Your task to perform on an android device: change the upload size in google photos Image 0: 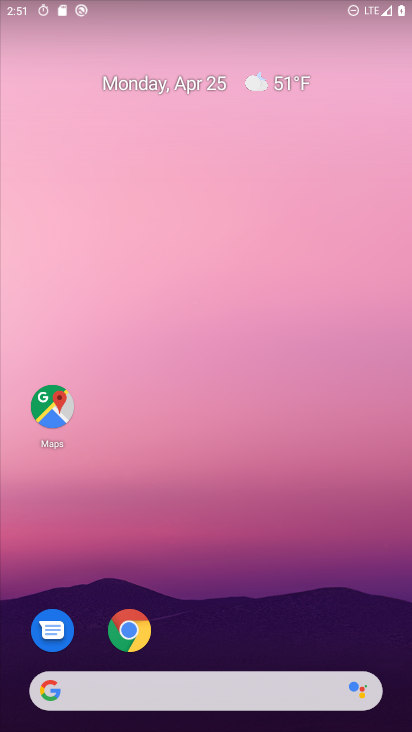
Step 0: drag from (202, 641) to (214, 42)
Your task to perform on an android device: change the upload size in google photos Image 1: 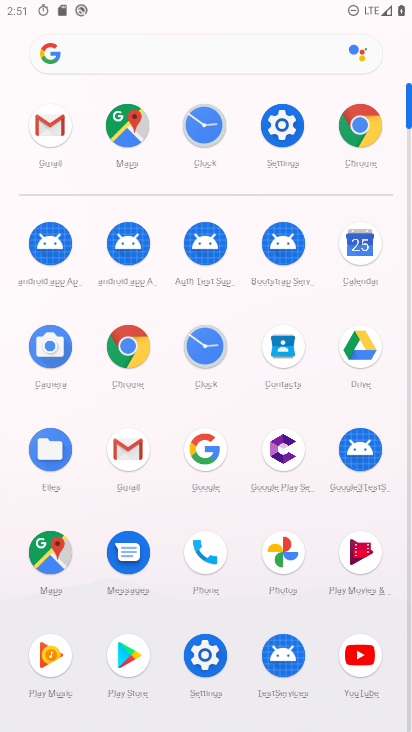
Step 1: click (196, 221)
Your task to perform on an android device: change the upload size in google photos Image 2: 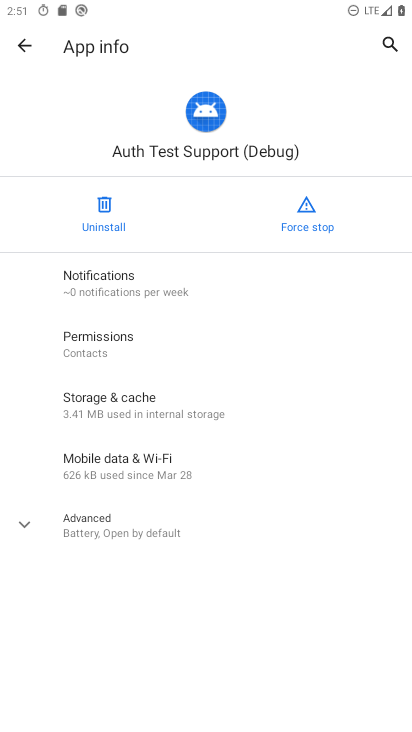
Step 2: press home button
Your task to perform on an android device: change the upload size in google photos Image 3: 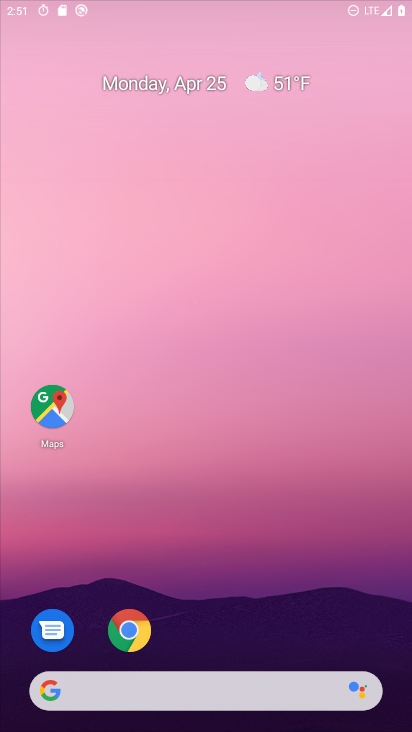
Step 3: drag from (215, 367) to (231, 75)
Your task to perform on an android device: change the upload size in google photos Image 4: 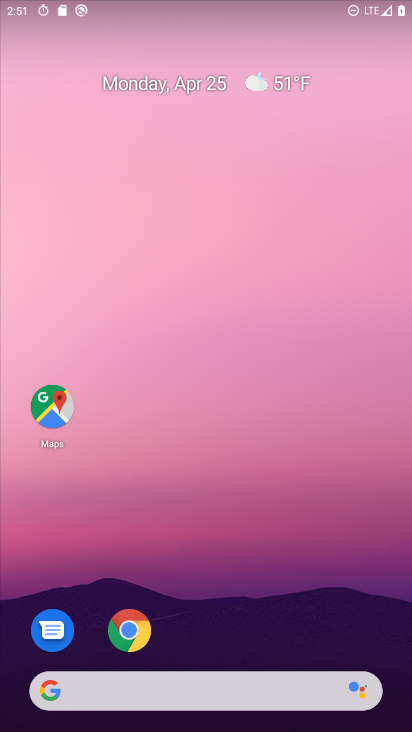
Step 4: drag from (219, 513) to (268, 38)
Your task to perform on an android device: change the upload size in google photos Image 5: 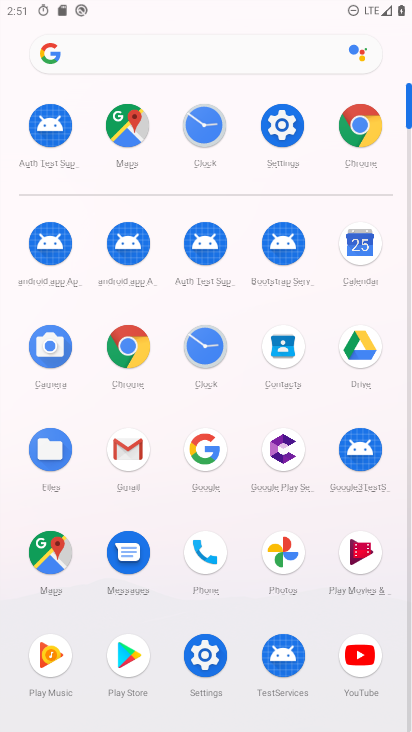
Step 5: click (292, 545)
Your task to perform on an android device: change the upload size in google photos Image 6: 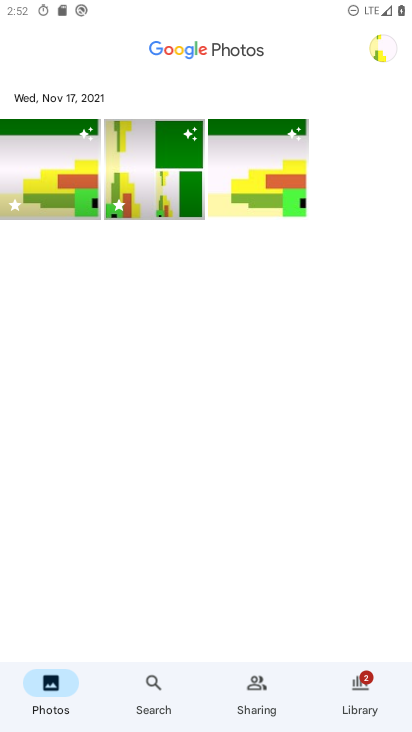
Step 6: click (392, 42)
Your task to perform on an android device: change the upload size in google photos Image 7: 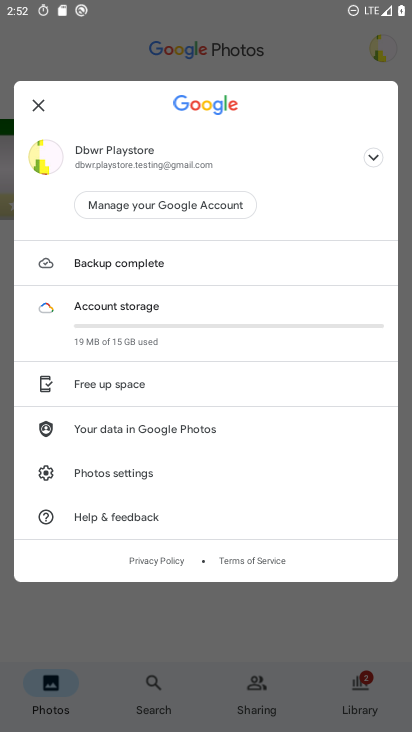
Step 7: click (128, 479)
Your task to perform on an android device: change the upload size in google photos Image 8: 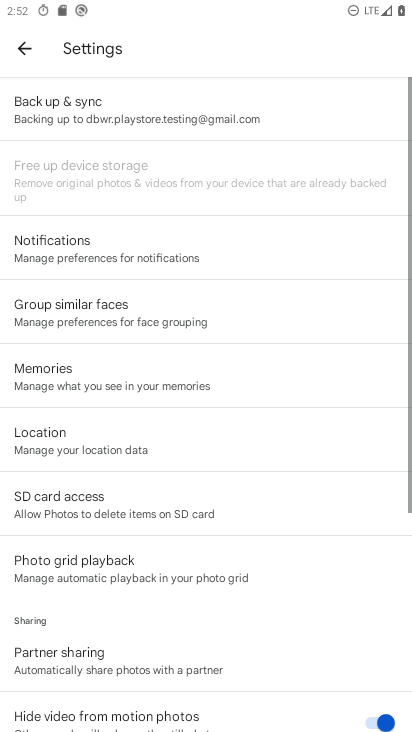
Step 8: click (200, 114)
Your task to perform on an android device: change the upload size in google photos Image 9: 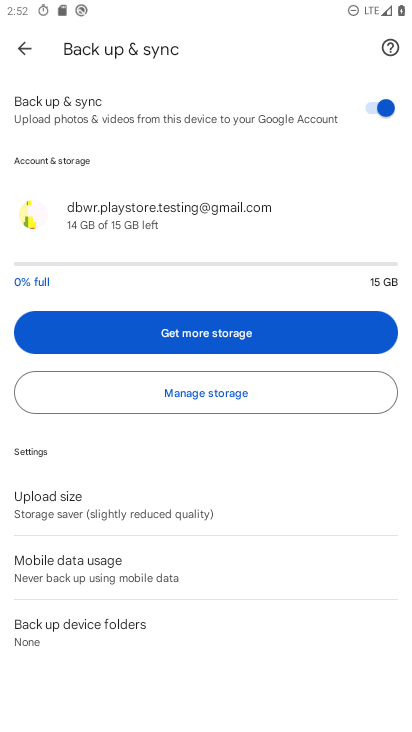
Step 9: click (55, 507)
Your task to perform on an android device: change the upload size in google photos Image 10: 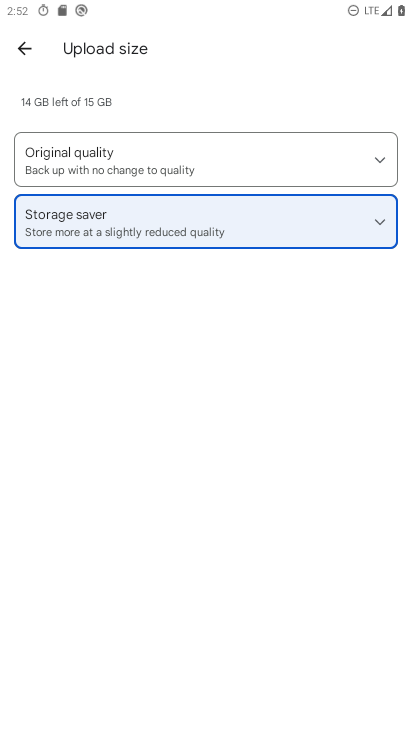
Step 10: click (272, 177)
Your task to perform on an android device: change the upload size in google photos Image 11: 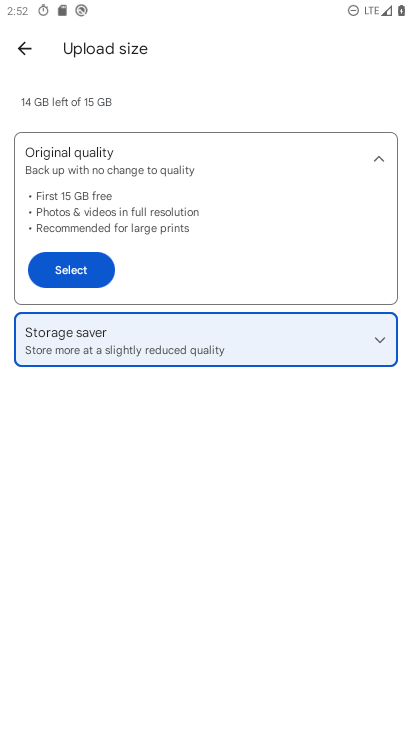
Step 11: click (85, 282)
Your task to perform on an android device: change the upload size in google photos Image 12: 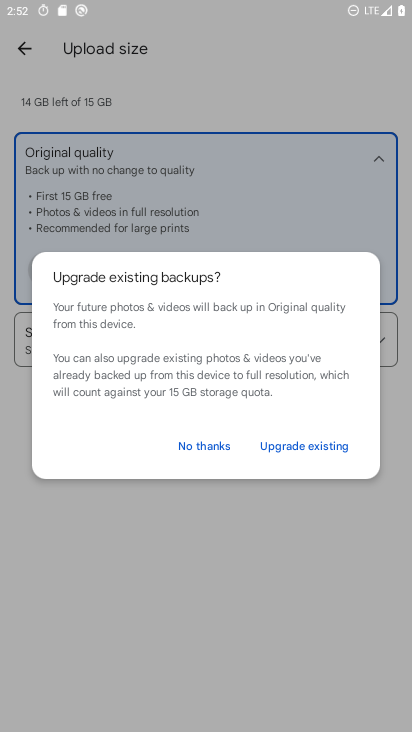
Step 12: task complete